Your task to perform on an android device: Open eBay Image 0: 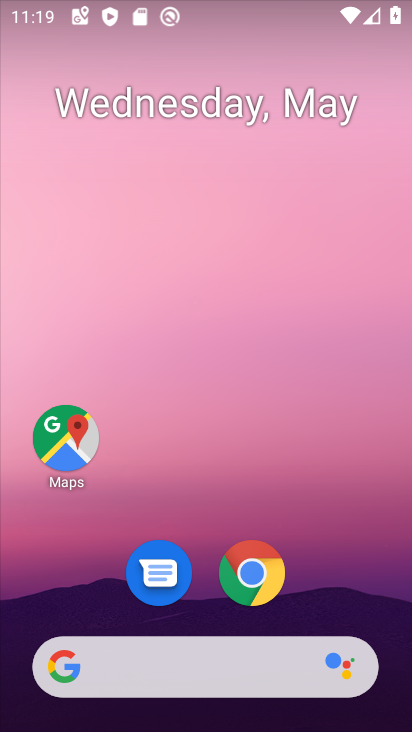
Step 0: click (239, 574)
Your task to perform on an android device: Open eBay Image 1: 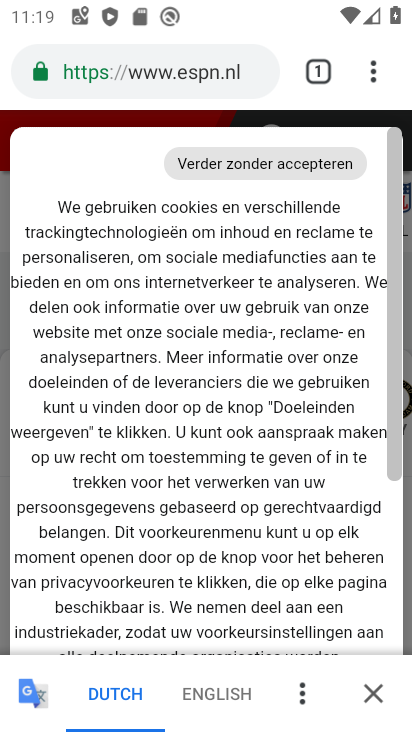
Step 1: click (372, 82)
Your task to perform on an android device: Open eBay Image 2: 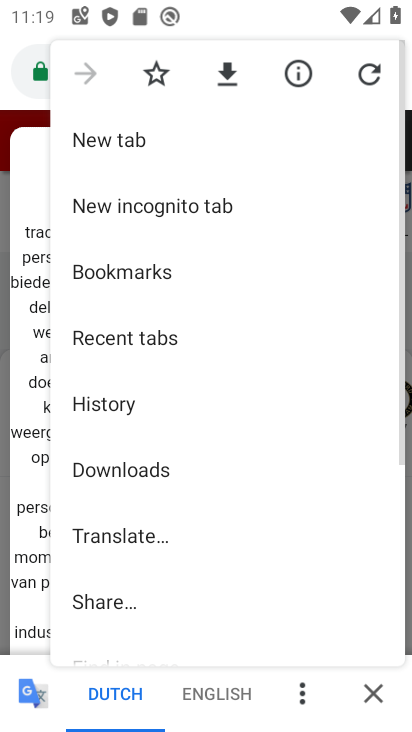
Step 2: click (119, 131)
Your task to perform on an android device: Open eBay Image 3: 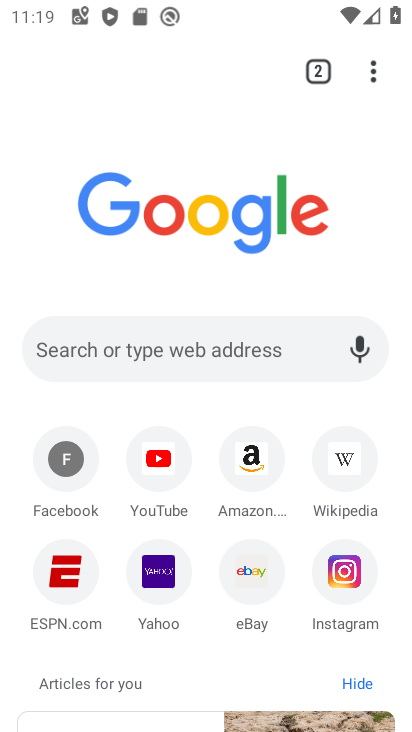
Step 3: click (250, 583)
Your task to perform on an android device: Open eBay Image 4: 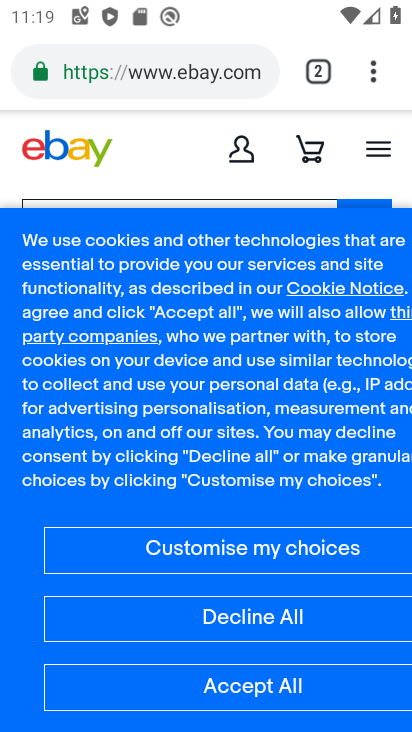
Step 4: task complete